Your task to perform on an android device: open app "Venmo" (install if not already installed) and enter user name: "bleedings@gmail.com" and password: "copied" Image 0: 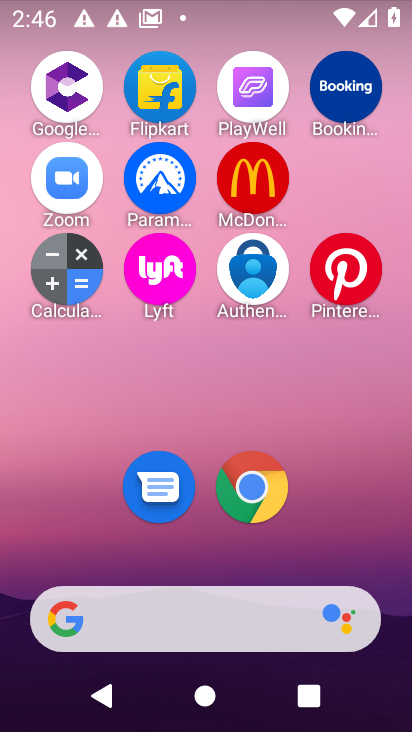
Step 0: press home button
Your task to perform on an android device: open app "Venmo" (install if not already installed) and enter user name: "bleedings@gmail.com" and password: "copied" Image 1: 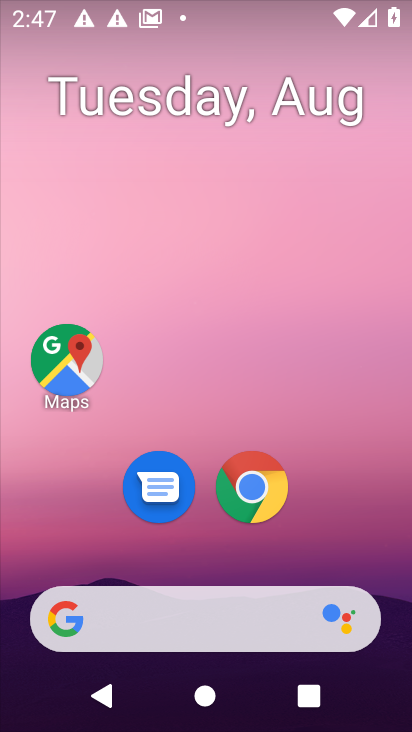
Step 1: drag from (150, 626) to (404, 104)
Your task to perform on an android device: open app "Venmo" (install if not already installed) and enter user name: "bleedings@gmail.com" and password: "copied" Image 2: 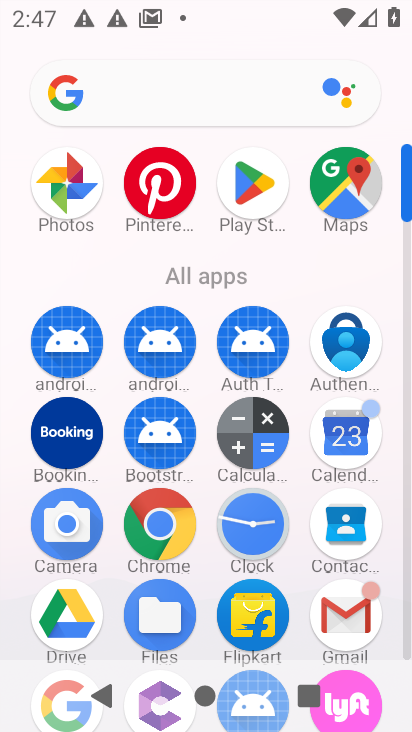
Step 2: click (256, 190)
Your task to perform on an android device: open app "Venmo" (install if not already installed) and enter user name: "bleedings@gmail.com" and password: "copied" Image 3: 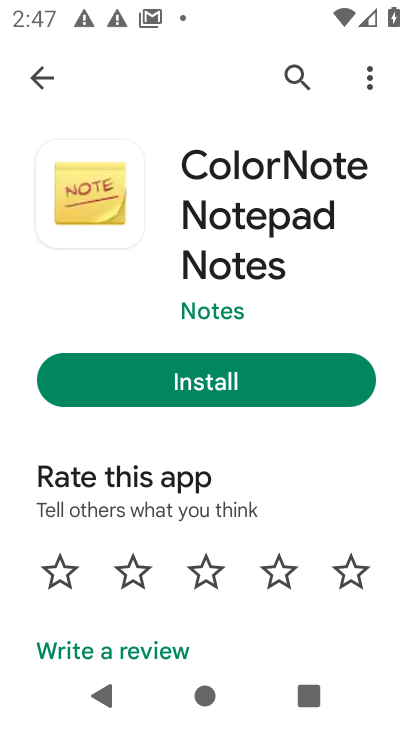
Step 3: press back button
Your task to perform on an android device: open app "Venmo" (install if not already installed) and enter user name: "bleedings@gmail.com" and password: "copied" Image 4: 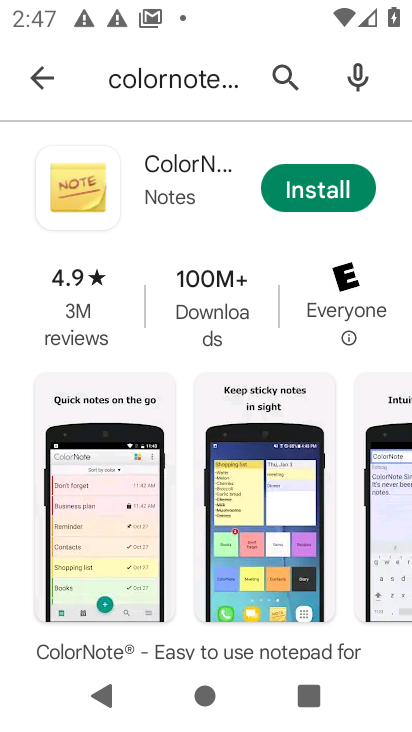
Step 4: press back button
Your task to perform on an android device: open app "Venmo" (install if not already installed) and enter user name: "bleedings@gmail.com" and password: "copied" Image 5: 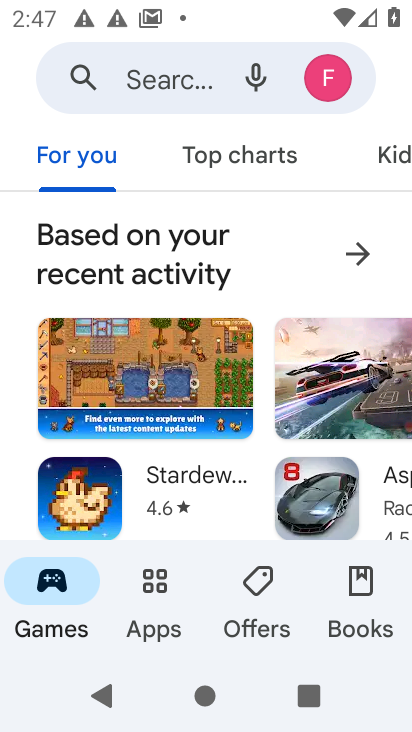
Step 5: click (176, 91)
Your task to perform on an android device: open app "Venmo" (install if not already installed) and enter user name: "bleedings@gmail.com" and password: "copied" Image 6: 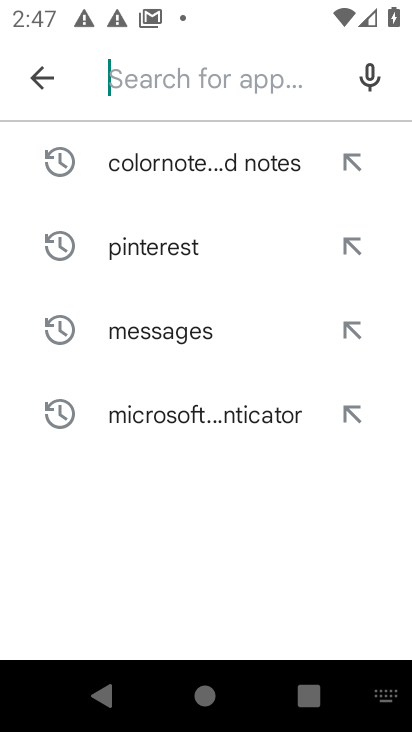
Step 6: type "Venmo"
Your task to perform on an android device: open app "Venmo" (install if not already installed) and enter user name: "bleedings@gmail.com" and password: "copied" Image 7: 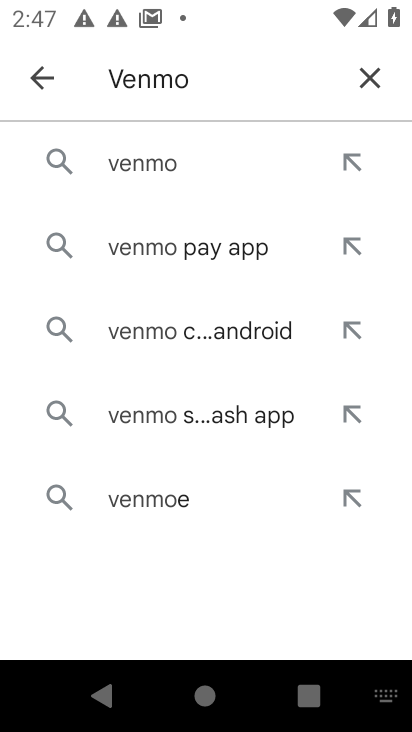
Step 7: click (168, 161)
Your task to perform on an android device: open app "Venmo" (install if not already installed) and enter user name: "bleedings@gmail.com" and password: "copied" Image 8: 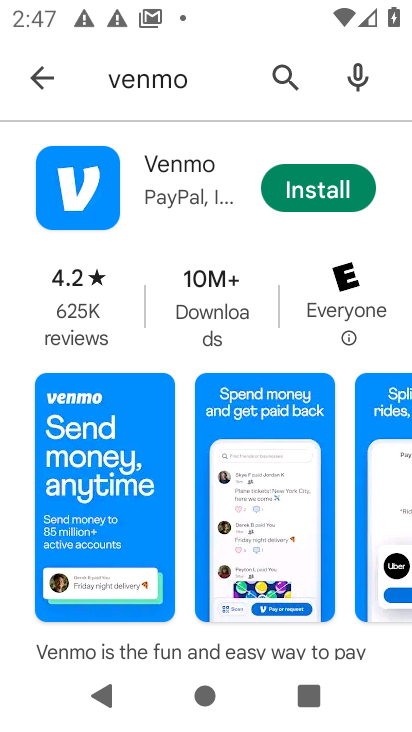
Step 8: click (319, 188)
Your task to perform on an android device: open app "Venmo" (install if not already installed) and enter user name: "bleedings@gmail.com" and password: "copied" Image 9: 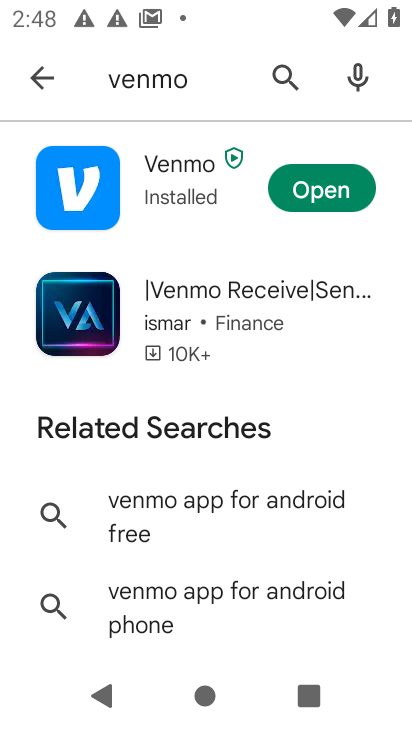
Step 9: click (319, 188)
Your task to perform on an android device: open app "Venmo" (install if not already installed) and enter user name: "bleedings@gmail.com" and password: "copied" Image 10: 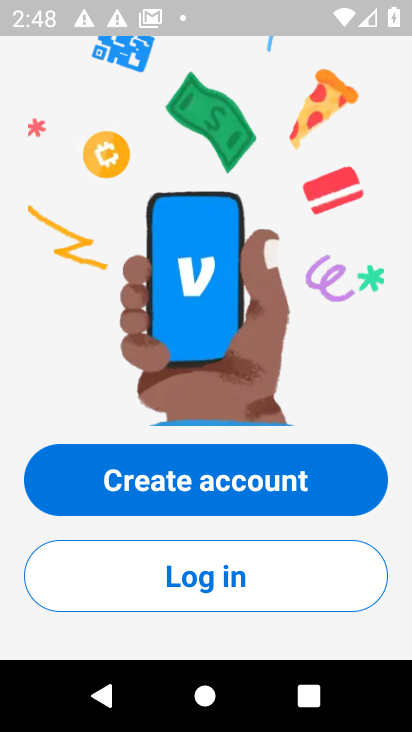
Step 10: click (197, 576)
Your task to perform on an android device: open app "Venmo" (install if not already installed) and enter user name: "bleedings@gmail.com" and password: "copied" Image 11: 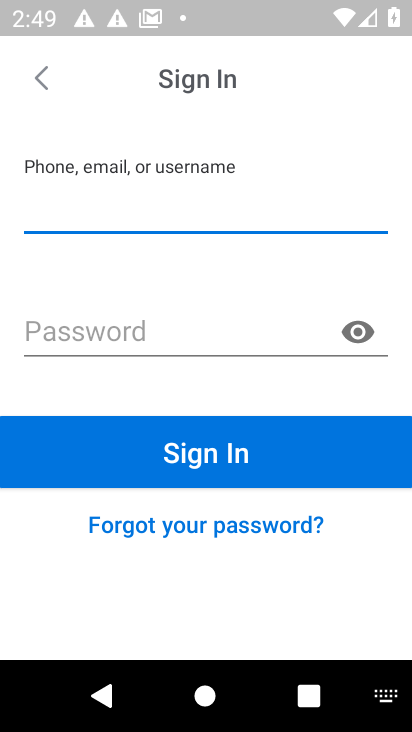
Step 11: type "bleedings@gmail.com"
Your task to perform on an android device: open app "Venmo" (install if not already installed) and enter user name: "bleedings@gmail.com" and password: "copied" Image 12: 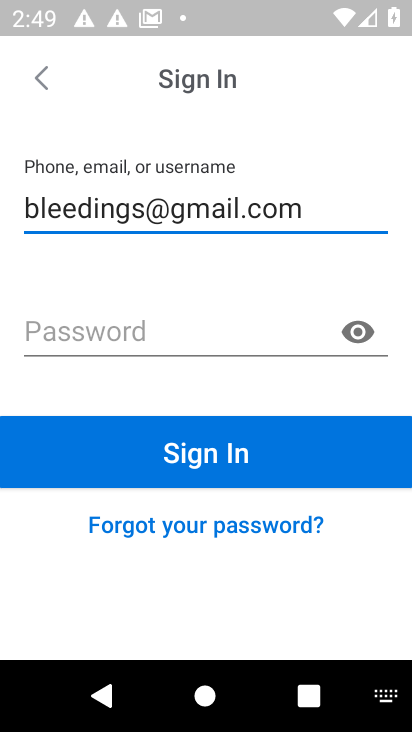
Step 12: click (226, 344)
Your task to perform on an android device: open app "Venmo" (install if not already installed) and enter user name: "bleedings@gmail.com" and password: "copied" Image 13: 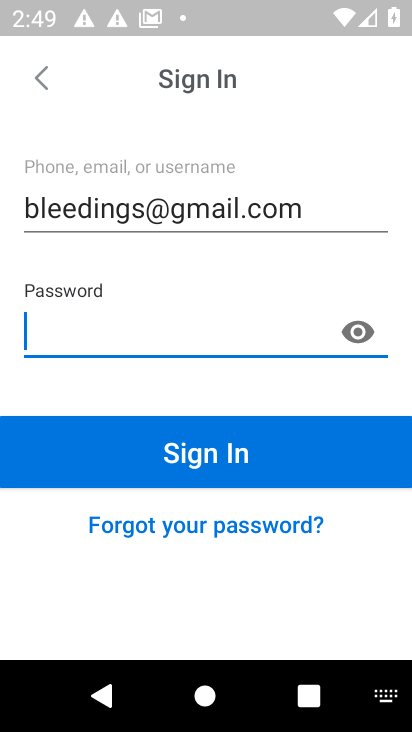
Step 13: type "copied"
Your task to perform on an android device: open app "Venmo" (install if not already installed) and enter user name: "bleedings@gmail.com" and password: "copied" Image 14: 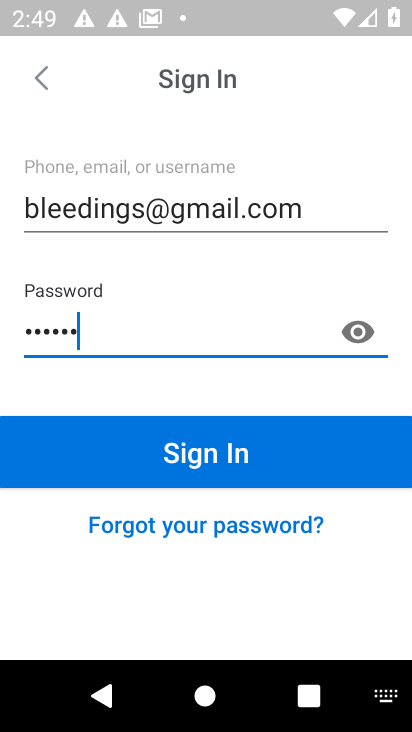
Step 14: task complete